Your task to perform on an android device: check data usage Image 0: 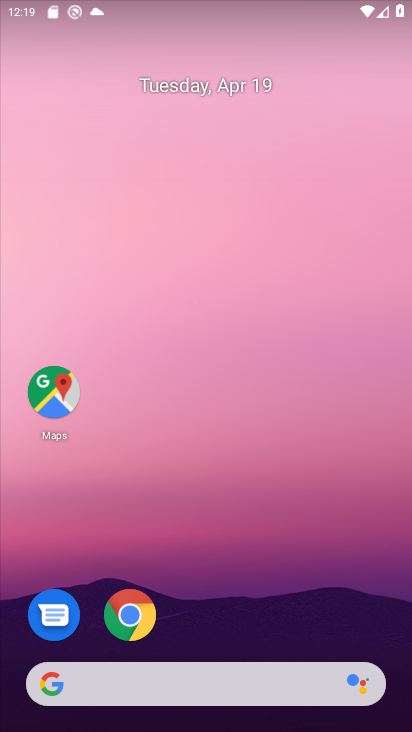
Step 0: drag from (225, 657) to (360, 117)
Your task to perform on an android device: check data usage Image 1: 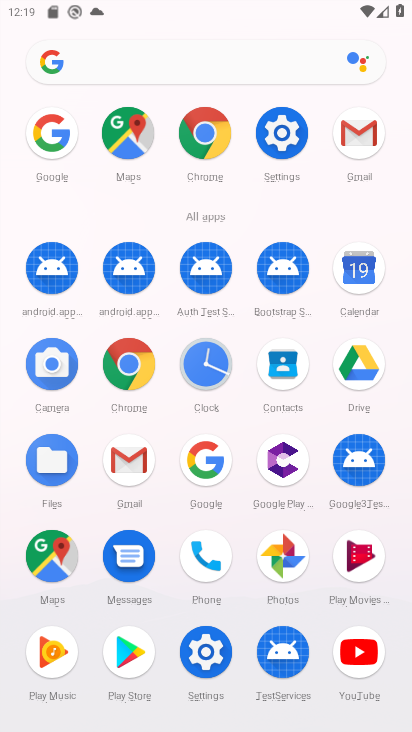
Step 1: click (275, 137)
Your task to perform on an android device: check data usage Image 2: 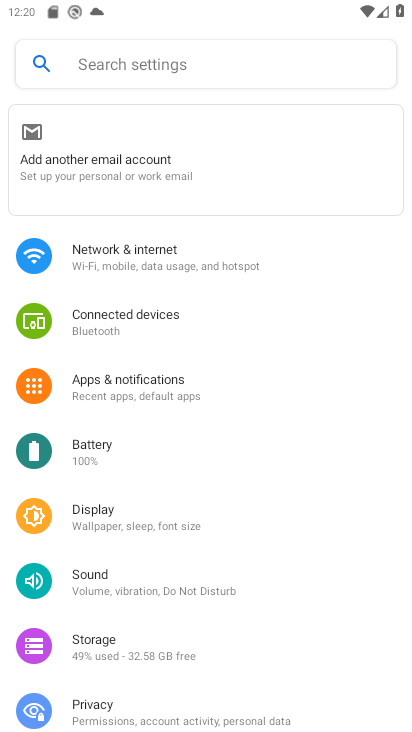
Step 2: click (218, 255)
Your task to perform on an android device: check data usage Image 3: 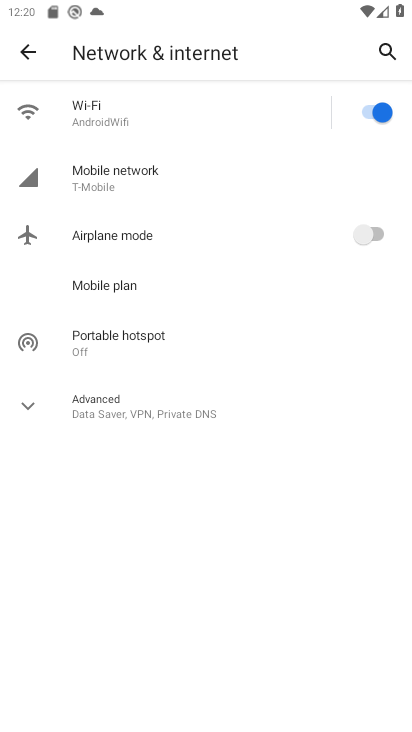
Step 3: click (170, 171)
Your task to perform on an android device: check data usage Image 4: 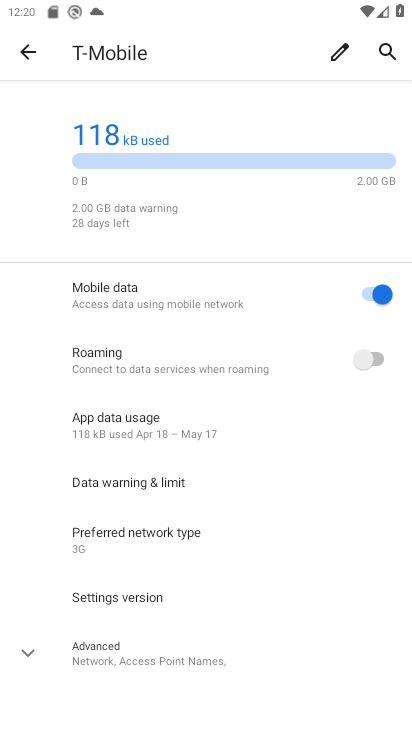
Step 4: task complete